Your task to perform on an android device: Open Maps and search for coffee Image 0: 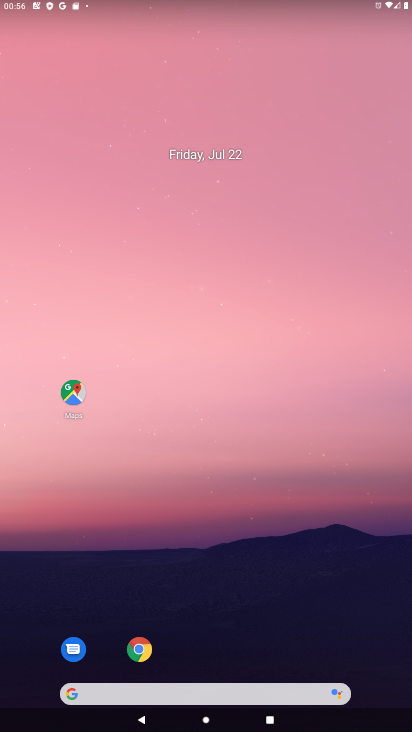
Step 0: drag from (276, 432) to (237, 27)
Your task to perform on an android device: Open Maps and search for coffee Image 1: 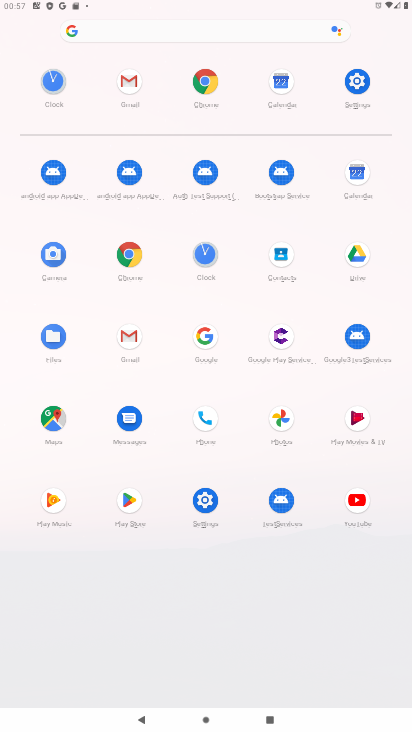
Step 1: click (45, 423)
Your task to perform on an android device: Open Maps and search for coffee Image 2: 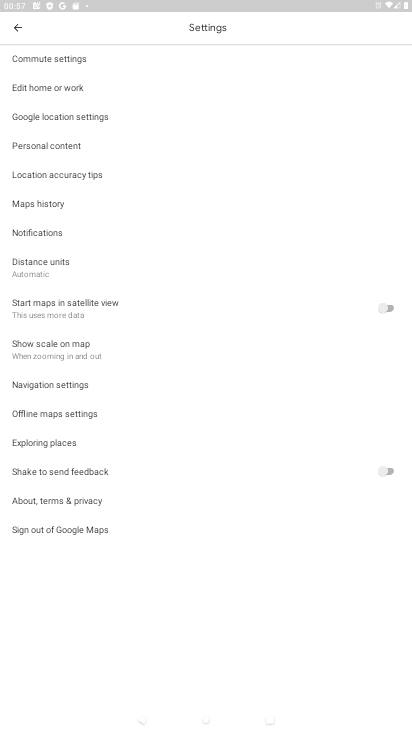
Step 2: click (19, 23)
Your task to perform on an android device: Open Maps and search for coffee Image 3: 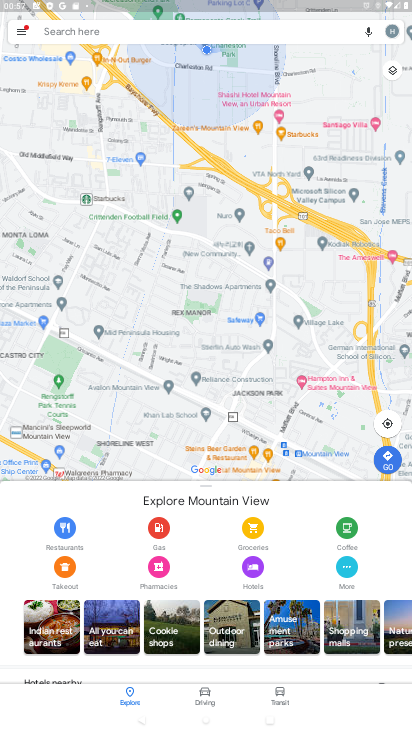
Step 3: click (195, 26)
Your task to perform on an android device: Open Maps and search for coffee Image 4: 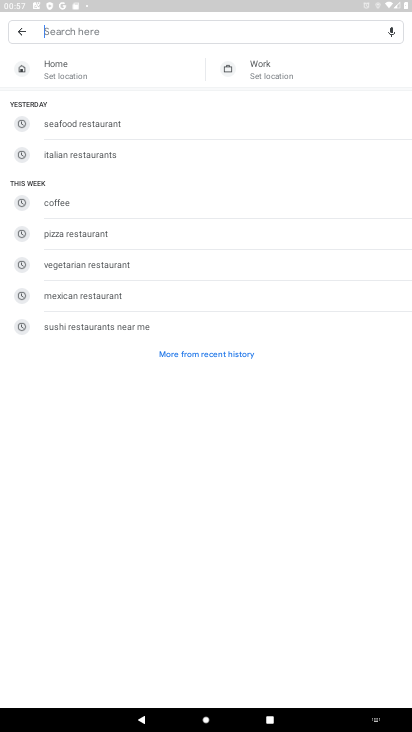
Step 4: click (69, 197)
Your task to perform on an android device: Open Maps and search for coffee Image 5: 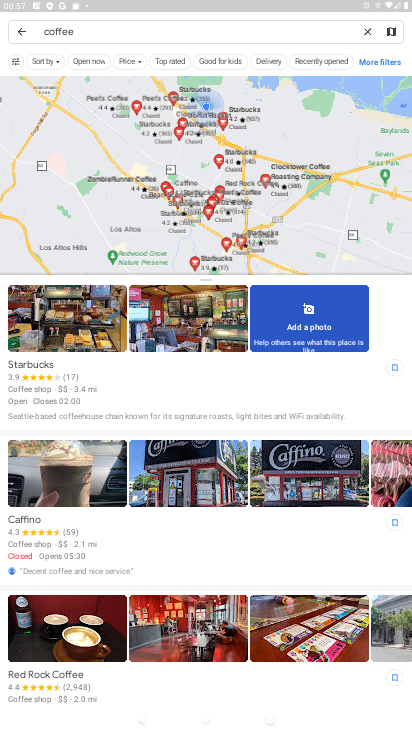
Step 5: task complete